Your task to perform on an android device: choose inbox layout in the gmail app Image 0: 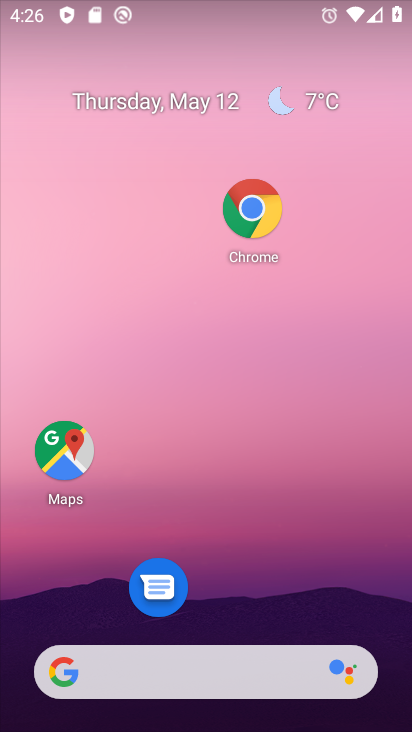
Step 0: drag from (258, 598) to (260, 145)
Your task to perform on an android device: choose inbox layout in the gmail app Image 1: 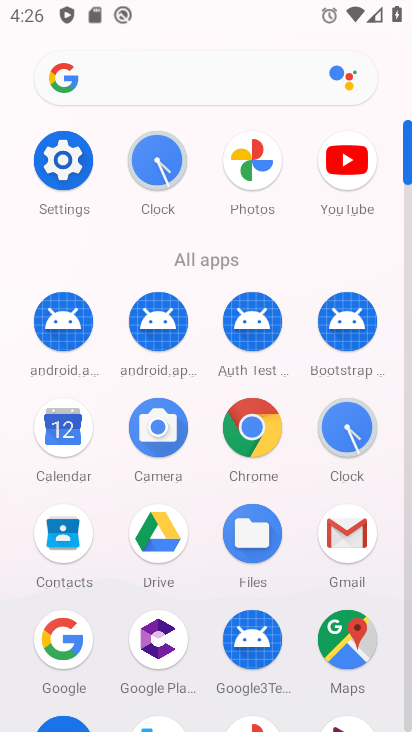
Step 1: click (349, 560)
Your task to perform on an android device: choose inbox layout in the gmail app Image 2: 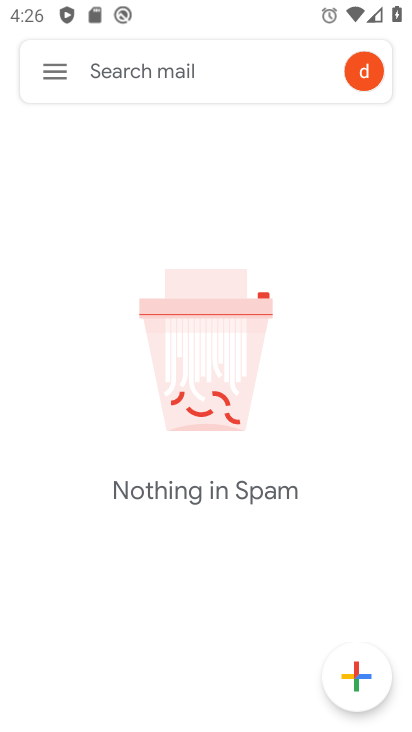
Step 2: click (62, 79)
Your task to perform on an android device: choose inbox layout in the gmail app Image 3: 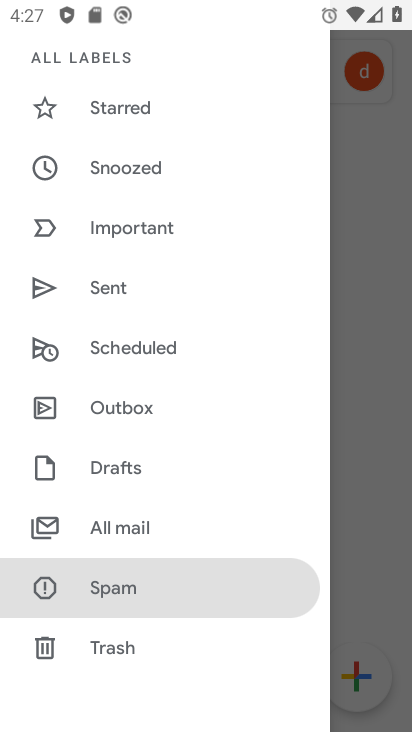
Step 3: drag from (207, 262) to (215, 209)
Your task to perform on an android device: choose inbox layout in the gmail app Image 4: 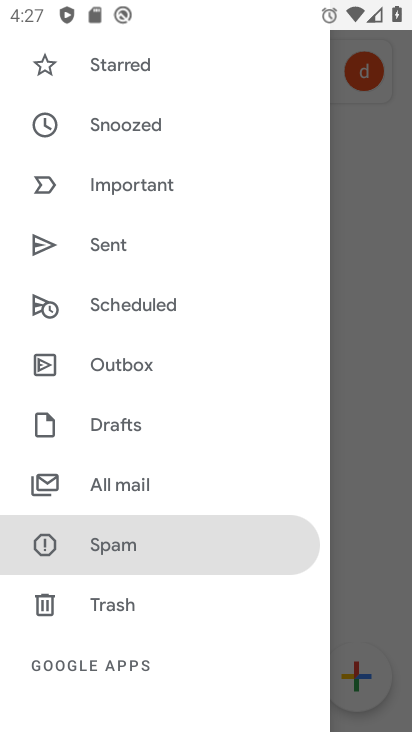
Step 4: drag from (98, 641) to (126, 265)
Your task to perform on an android device: choose inbox layout in the gmail app Image 5: 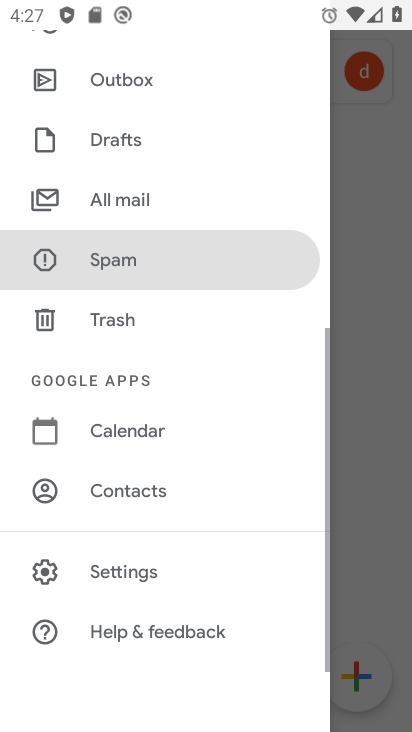
Step 5: drag from (125, 641) to (130, 319)
Your task to perform on an android device: choose inbox layout in the gmail app Image 6: 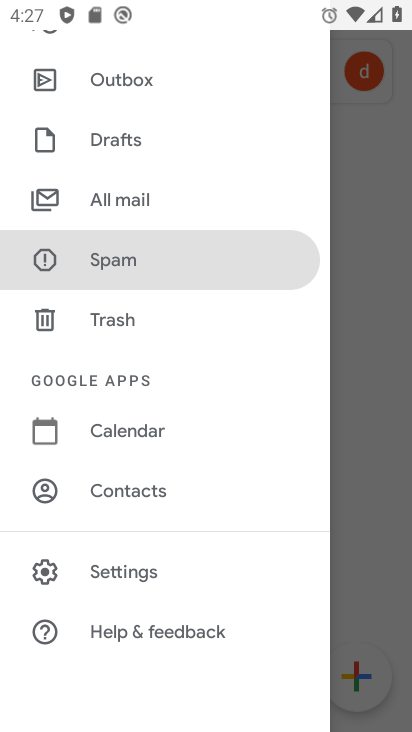
Step 6: click (142, 577)
Your task to perform on an android device: choose inbox layout in the gmail app Image 7: 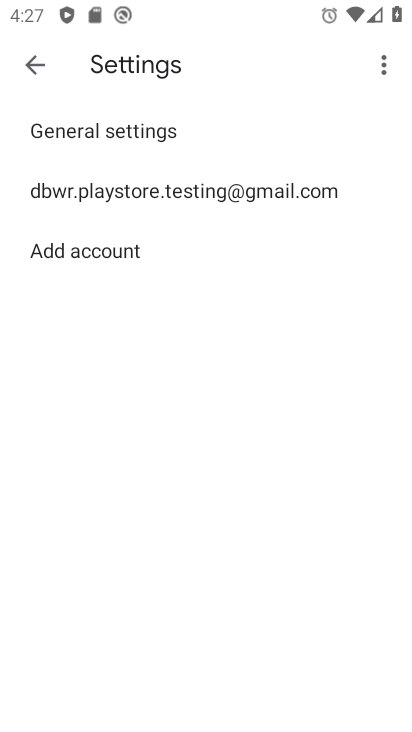
Step 7: click (159, 190)
Your task to perform on an android device: choose inbox layout in the gmail app Image 8: 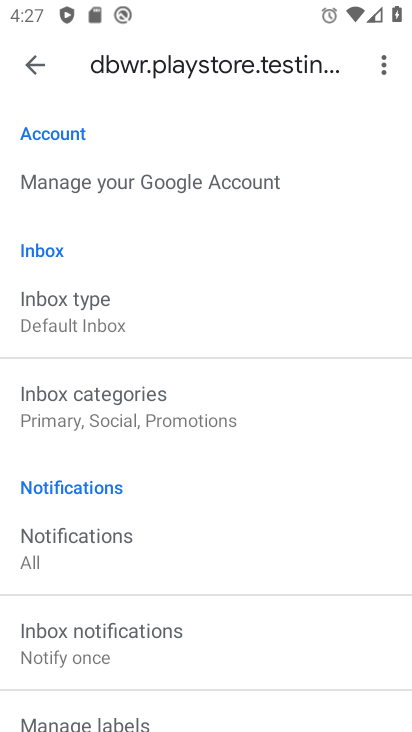
Step 8: drag from (186, 670) to (220, 298)
Your task to perform on an android device: choose inbox layout in the gmail app Image 9: 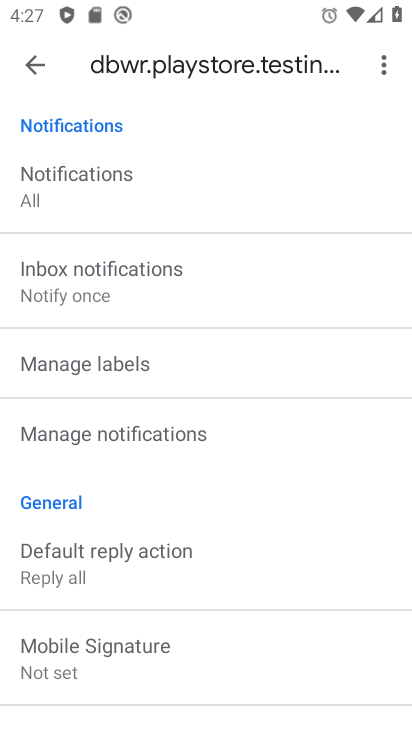
Step 9: drag from (166, 590) to (251, 153)
Your task to perform on an android device: choose inbox layout in the gmail app Image 10: 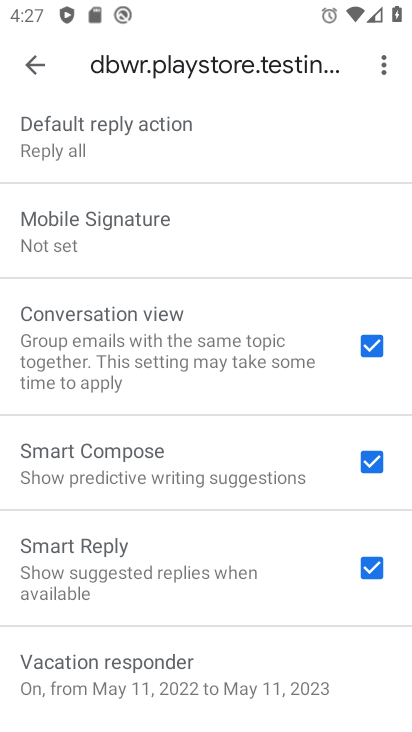
Step 10: drag from (238, 152) to (158, 611)
Your task to perform on an android device: choose inbox layout in the gmail app Image 11: 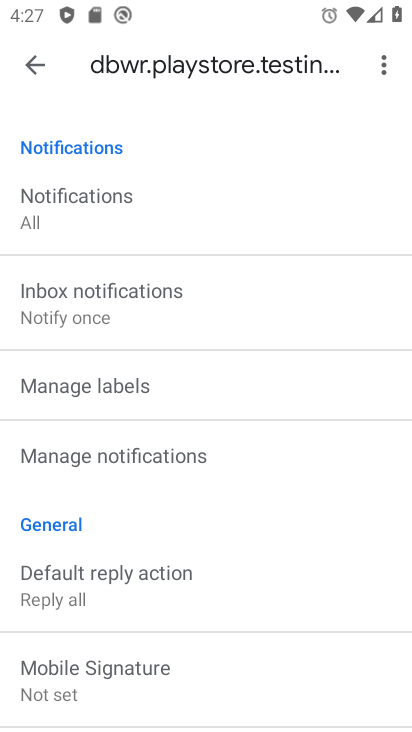
Step 11: drag from (107, 295) to (105, 489)
Your task to perform on an android device: choose inbox layout in the gmail app Image 12: 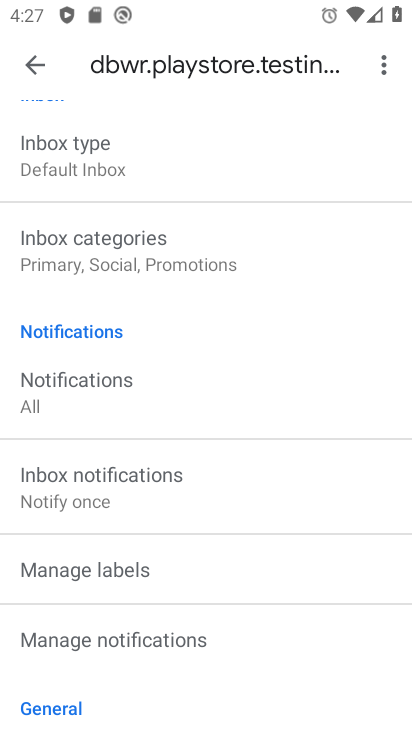
Step 12: drag from (112, 209) to (97, 605)
Your task to perform on an android device: choose inbox layout in the gmail app Image 13: 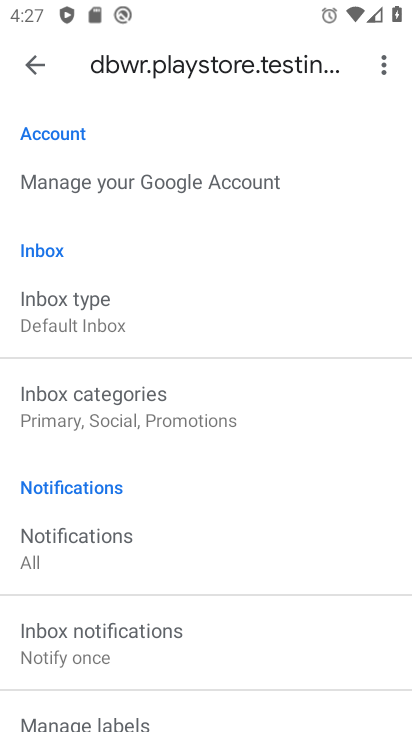
Step 13: click (54, 320)
Your task to perform on an android device: choose inbox layout in the gmail app Image 14: 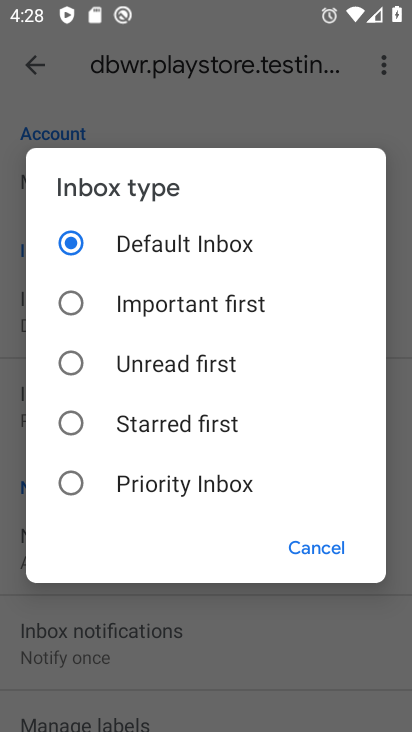
Step 14: click (68, 312)
Your task to perform on an android device: choose inbox layout in the gmail app Image 15: 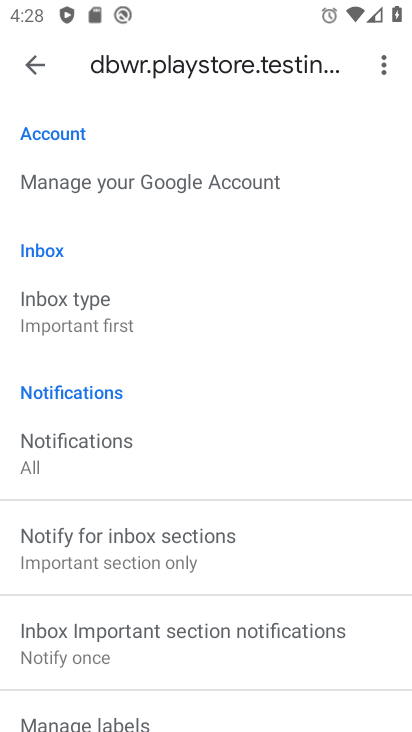
Step 15: task complete